Your task to perform on an android device: add a label to a message in the gmail app Image 0: 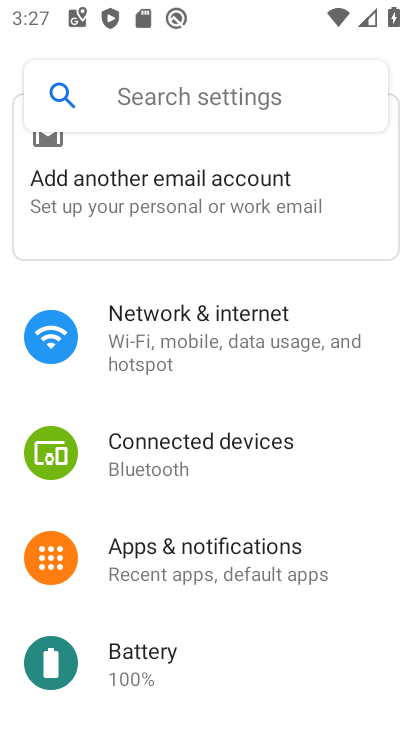
Step 0: press home button
Your task to perform on an android device: add a label to a message in the gmail app Image 1: 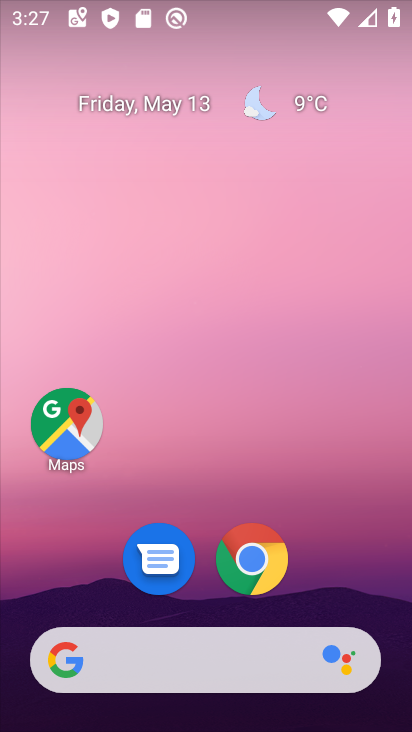
Step 1: drag from (379, 609) to (304, 19)
Your task to perform on an android device: add a label to a message in the gmail app Image 2: 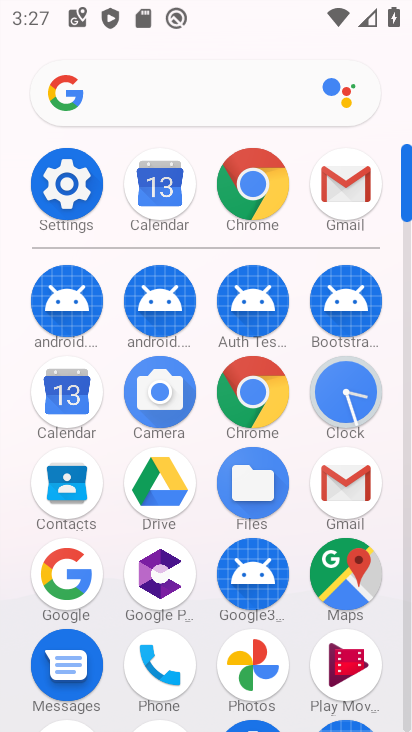
Step 2: click (343, 484)
Your task to perform on an android device: add a label to a message in the gmail app Image 3: 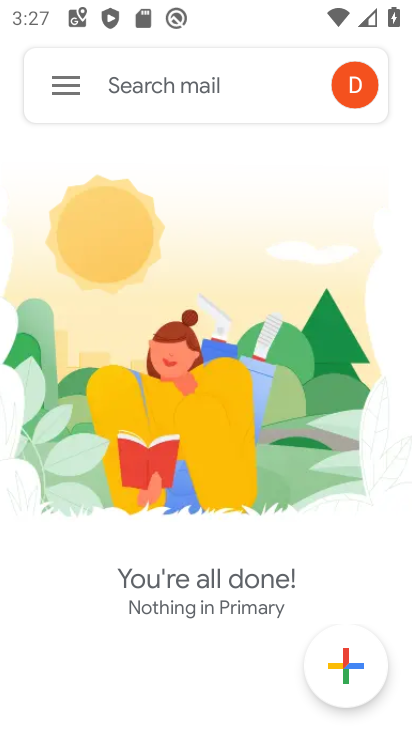
Step 3: click (65, 78)
Your task to perform on an android device: add a label to a message in the gmail app Image 4: 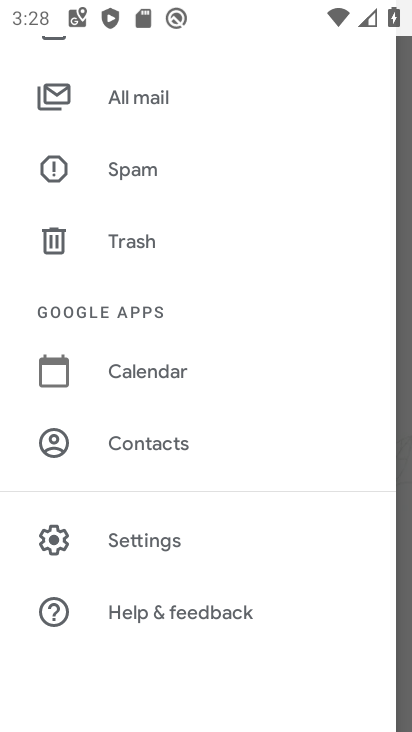
Step 4: click (125, 98)
Your task to perform on an android device: add a label to a message in the gmail app Image 5: 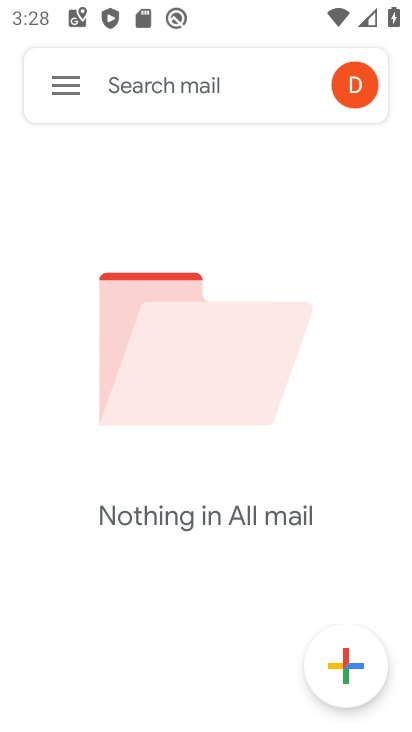
Step 5: task complete